Your task to perform on an android device: turn off picture-in-picture Image 0: 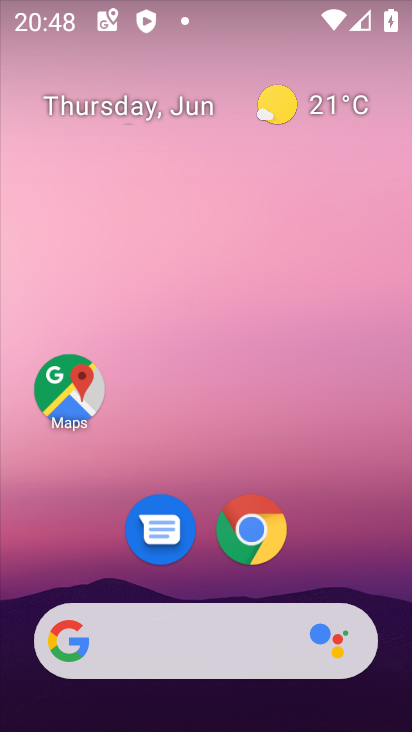
Step 0: drag from (363, 508) to (203, 111)
Your task to perform on an android device: turn off picture-in-picture Image 1: 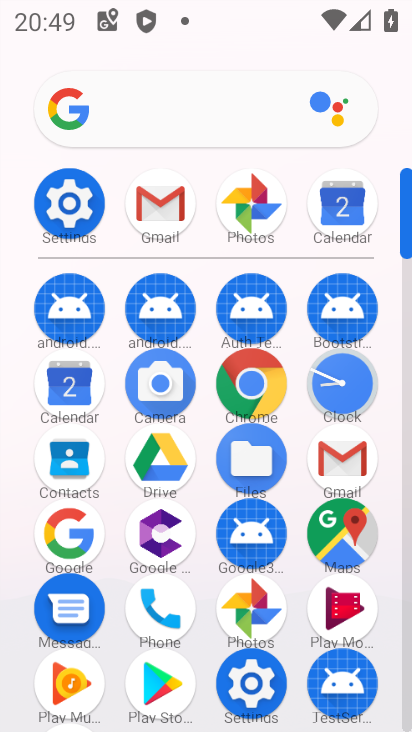
Step 1: click (64, 198)
Your task to perform on an android device: turn off picture-in-picture Image 2: 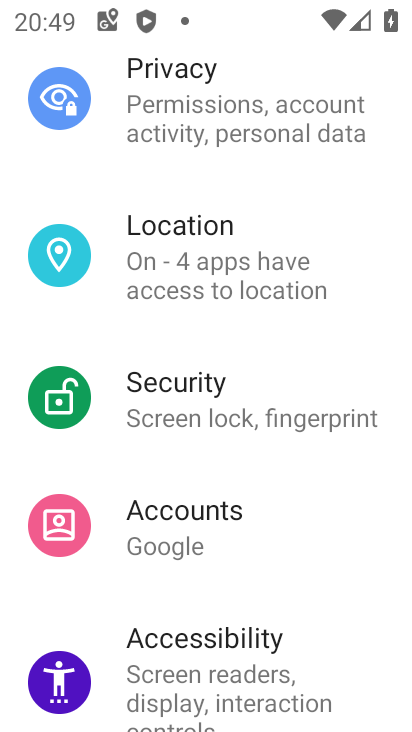
Step 2: drag from (180, 168) to (159, 501)
Your task to perform on an android device: turn off picture-in-picture Image 3: 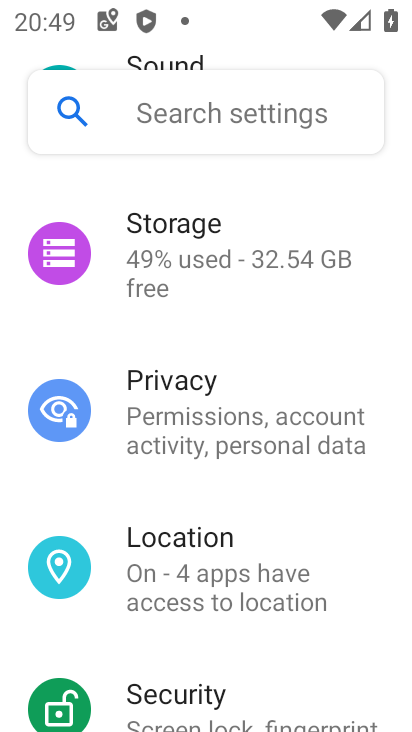
Step 3: drag from (130, 196) to (179, 502)
Your task to perform on an android device: turn off picture-in-picture Image 4: 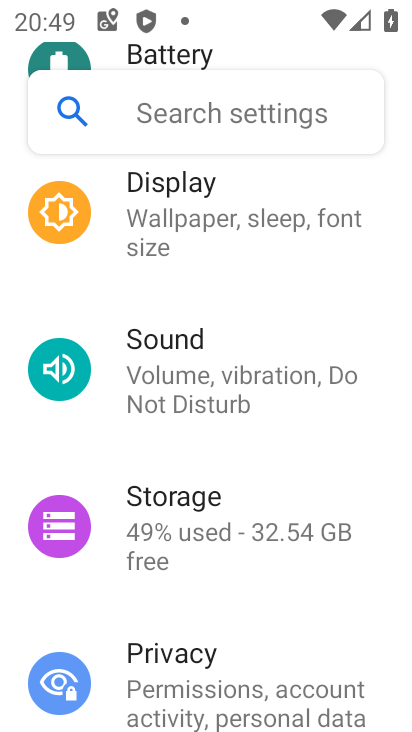
Step 4: drag from (240, 276) to (234, 658)
Your task to perform on an android device: turn off picture-in-picture Image 5: 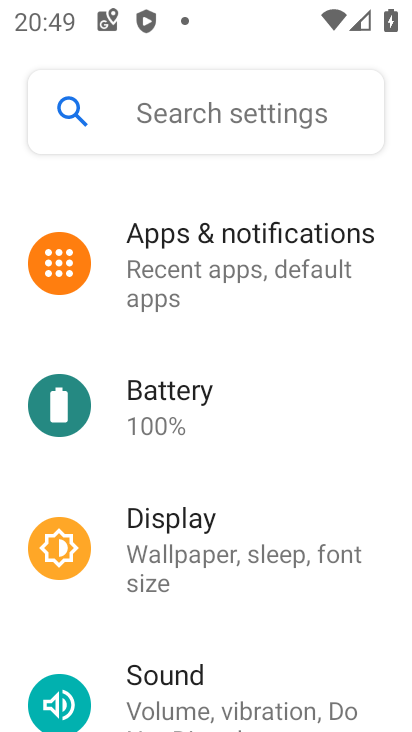
Step 5: click (214, 234)
Your task to perform on an android device: turn off picture-in-picture Image 6: 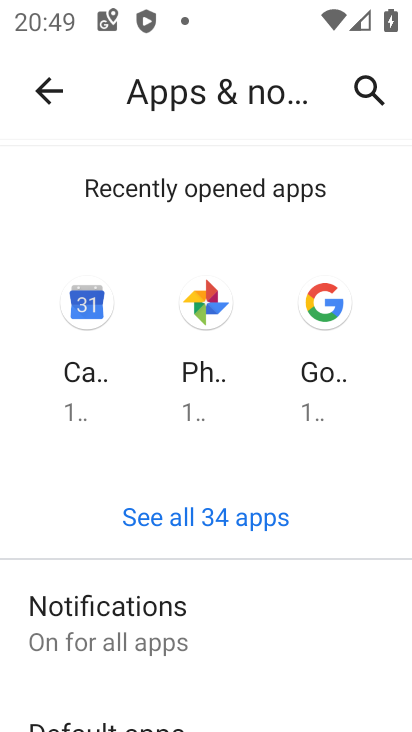
Step 6: drag from (243, 613) to (194, 252)
Your task to perform on an android device: turn off picture-in-picture Image 7: 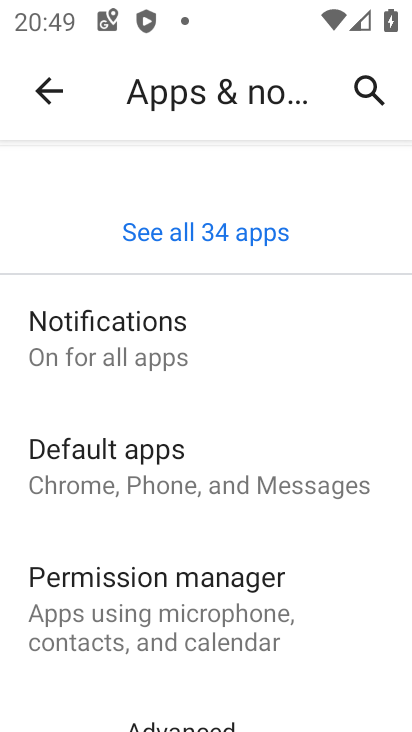
Step 7: drag from (330, 615) to (291, 185)
Your task to perform on an android device: turn off picture-in-picture Image 8: 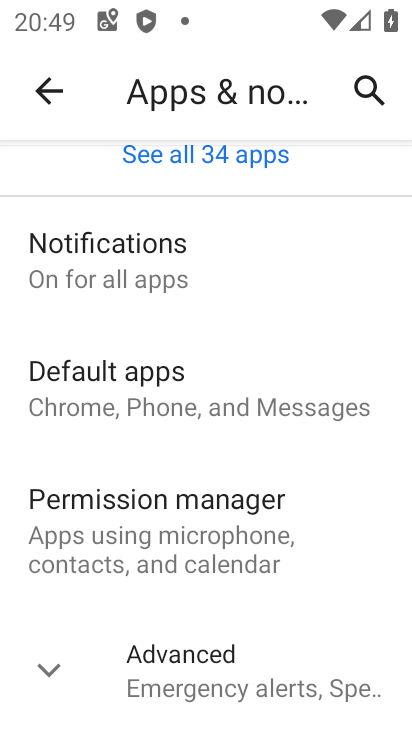
Step 8: click (51, 670)
Your task to perform on an android device: turn off picture-in-picture Image 9: 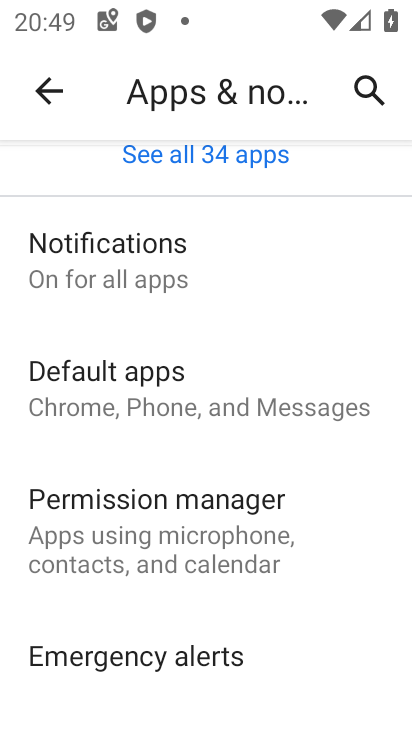
Step 9: drag from (258, 610) to (223, 250)
Your task to perform on an android device: turn off picture-in-picture Image 10: 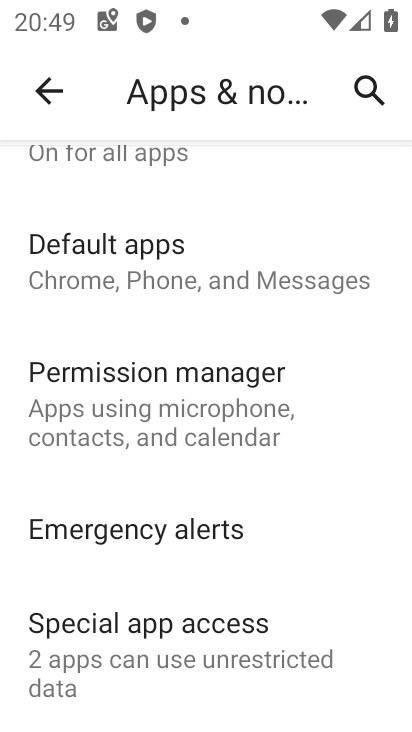
Step 10: click (105, 630)
Your task to perform on an android device: turn off picture-in-picture Image 11: 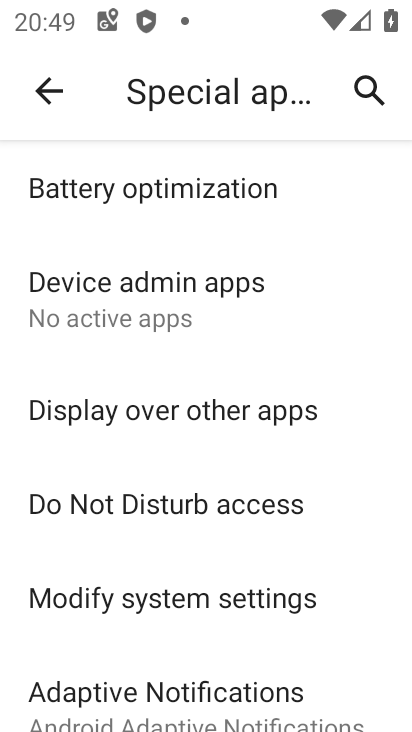
Step 11: drag from (308, 633) to (283, 272)
Your task to perform on an android device: turn off picture-in-picture Image 12: 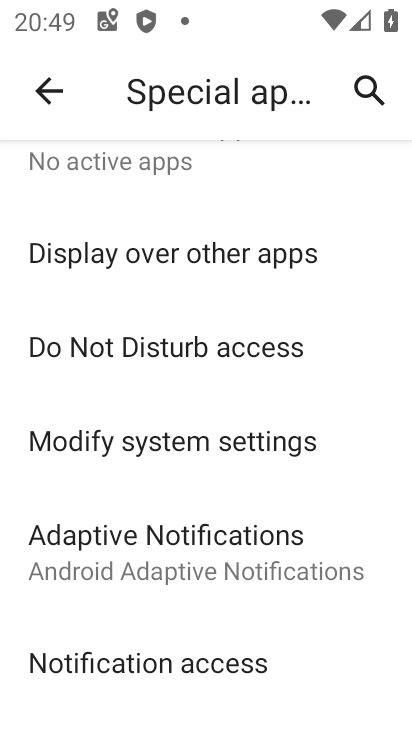
Step 12: drag from (290, 654) to (217, 273)
Your task to perform on an android device: turn off picture-in-picture Image 13: 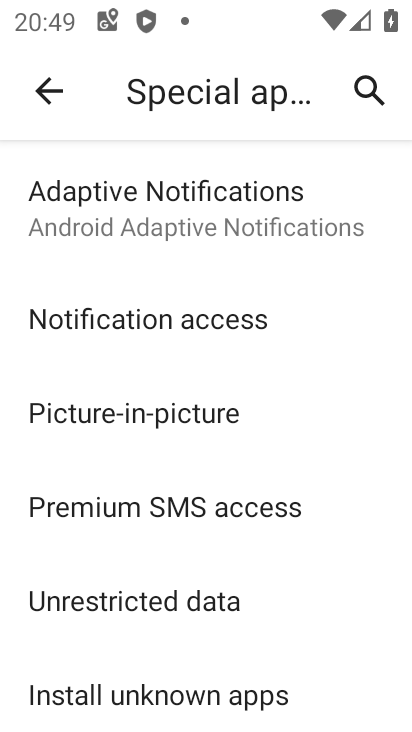
Step 13: click (157, 412)
Your task to perform on an android device: turn off picture-in-picture Image 14: 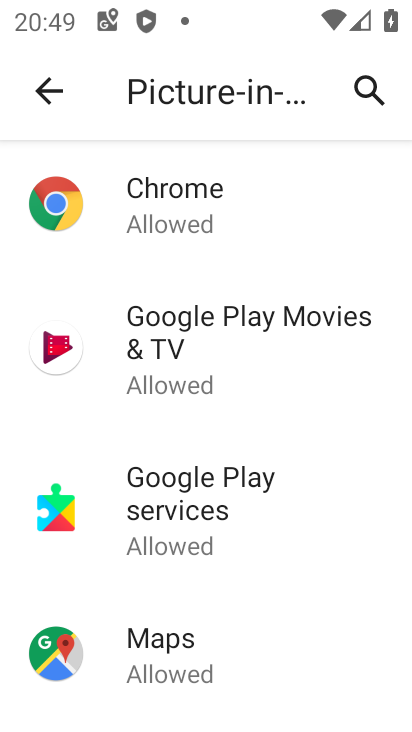
Step 14: click (160, 221)
Your task to perform on an android device: turn off picture-in-picture Image 15: 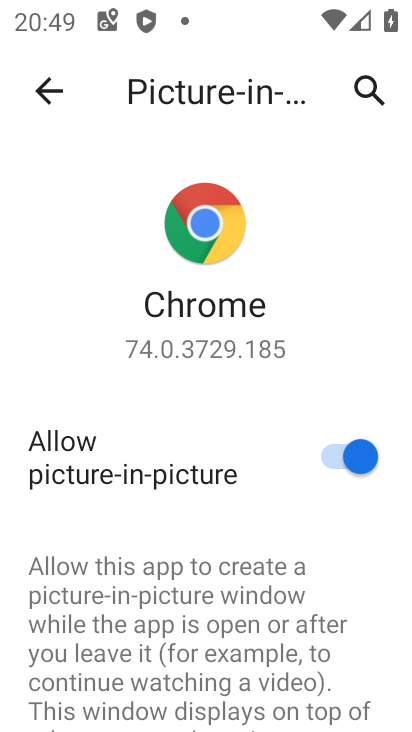
Step 15: click (353, 456)
Your task to perform on an android device: turn off picture-in-picture Image 16: 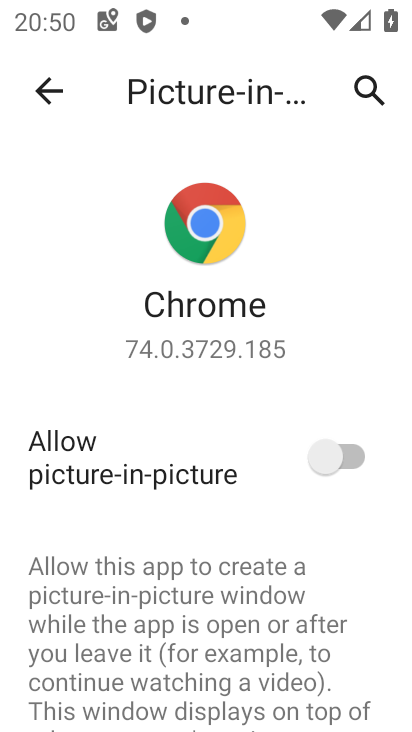
Step 16: click (29, 90)
Your task to perform on an android device: turn off picture-in-picture Image 17: 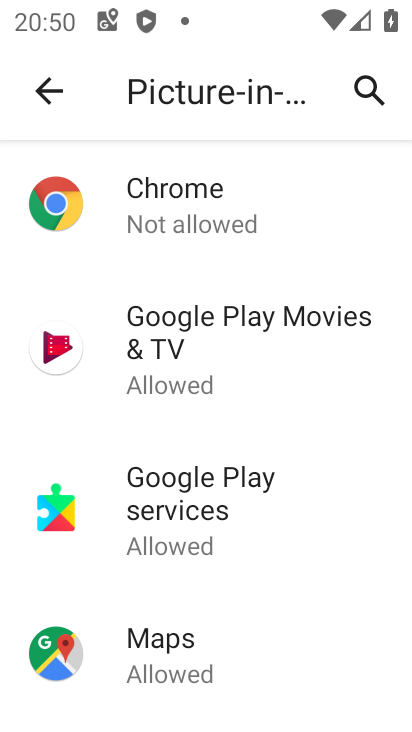
Step 17: click (171, 364)
Your task to perform on an android device: turn off picture-in-picture Image 18: 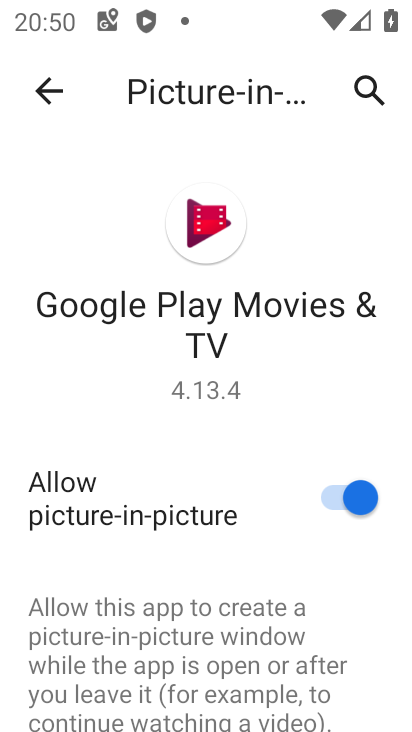
Step 18: click (356, 493)
Your task to perform on an android device: turn off picture-in-picture Image 19: 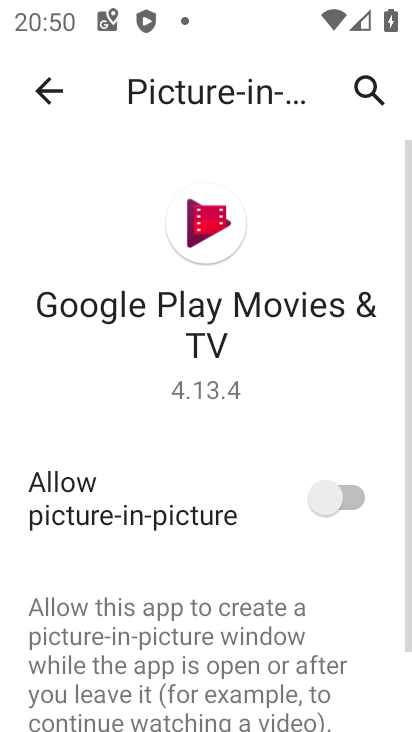
Step 19: click (41, 94)
Your task to perform on an android device: turn off picture-in-picture Image 20: 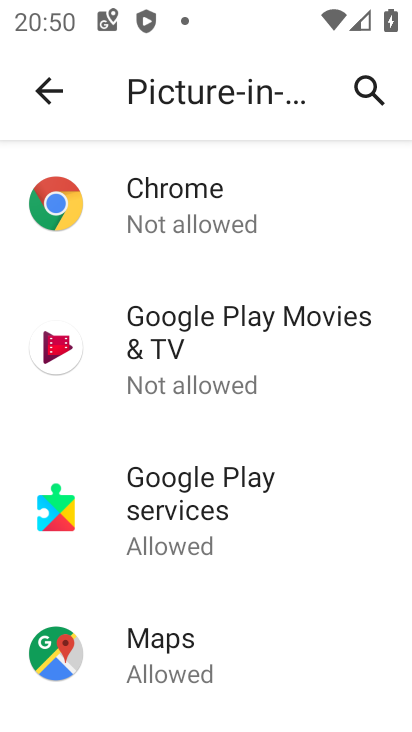
Step 20: click (181, 511)
Your task to perform on an android device: turn off picture-in-picture Image 21: 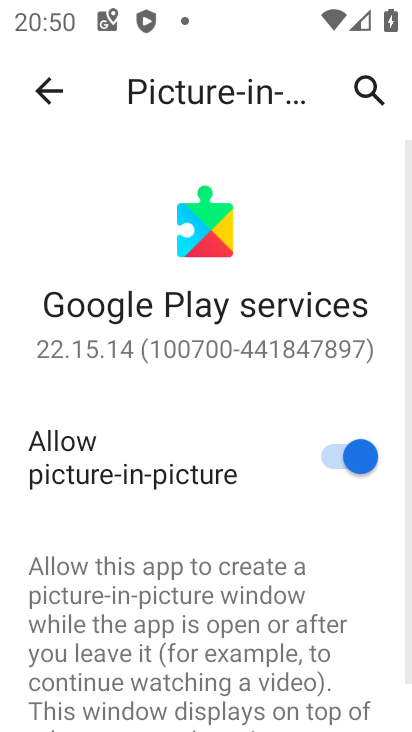
Step 21: click (338, 452)
Your task to perform on an android device: turn off picture-in-picture Image 22: 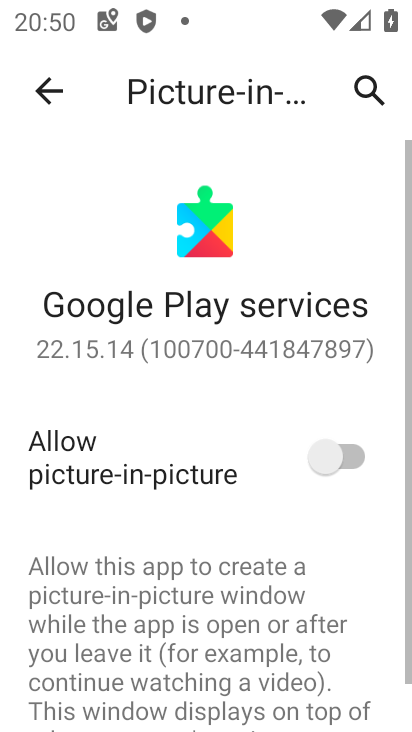
Step 22: click (43, 87)
Your task to perform on an android device: turn off picture-in-picture Image 23: 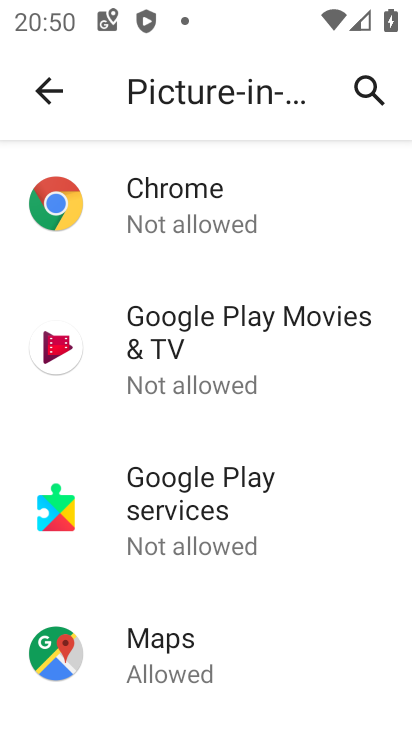
Step 23: click (170, 657)
Your task to perform on an android device: turn off picture-in-picture Image 24: 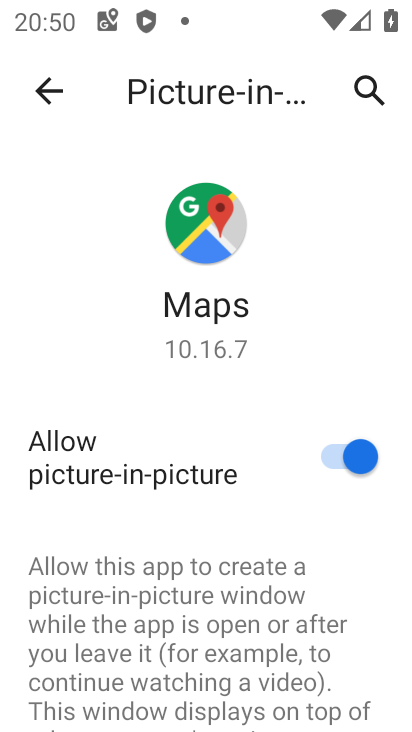
Step 24: click (348, 459)
Your task to perform on an android device: turn off picture-in-picture Image 25: 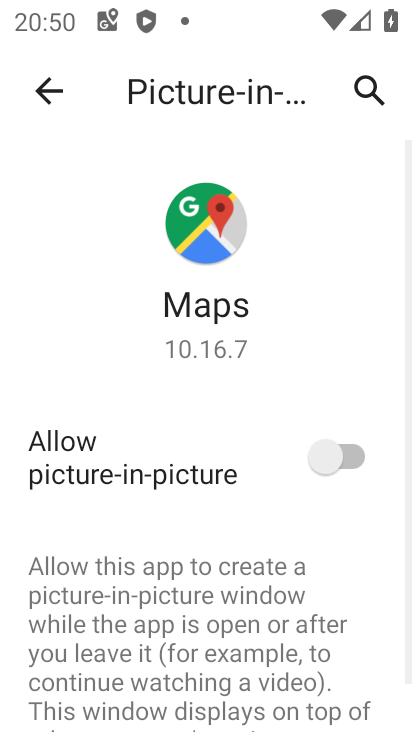
Step 25: click (42, 88)
Your task to perform on an android device: turn off picture-in-picture Image 26: 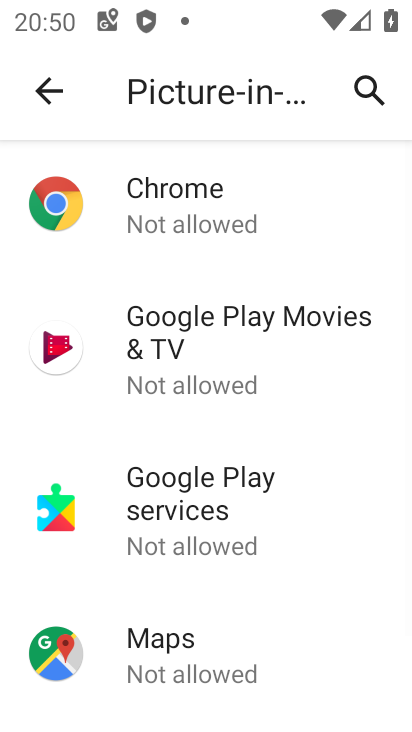
Step 26: drag from (335, 580) to (274, 255)
Your task to perform on an android device: turn off picture-in-picture Image 27: 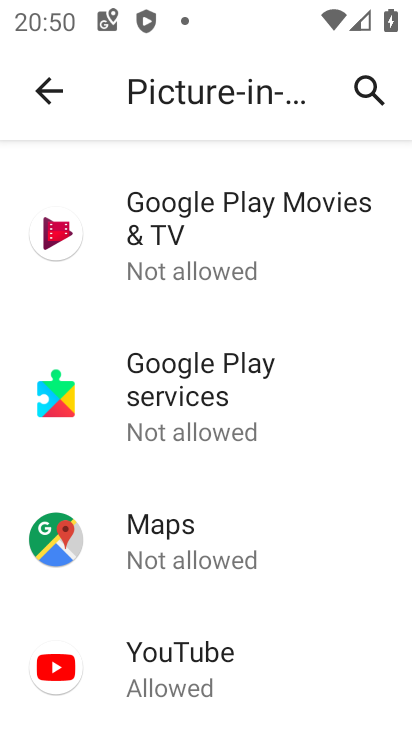
Step 27: click (179, 672)
Your task to perform on an android device: turn off picture-in-picture Image 28: 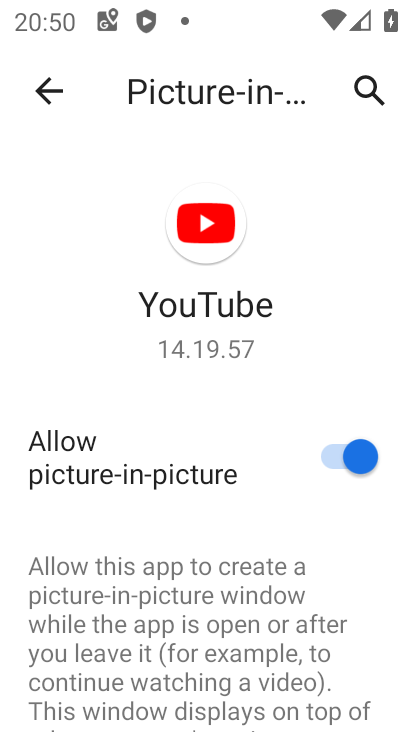
Step 28: click (346, 463)
Your task to perform on an android device: turn off picture-in-picture Image 29: 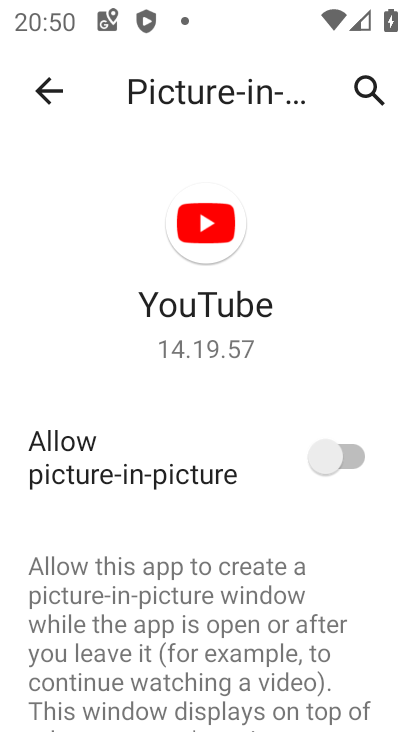
Step 29: click (53, 87)
Your task to perform on an android device: turn off picture-in-picture Image 30: 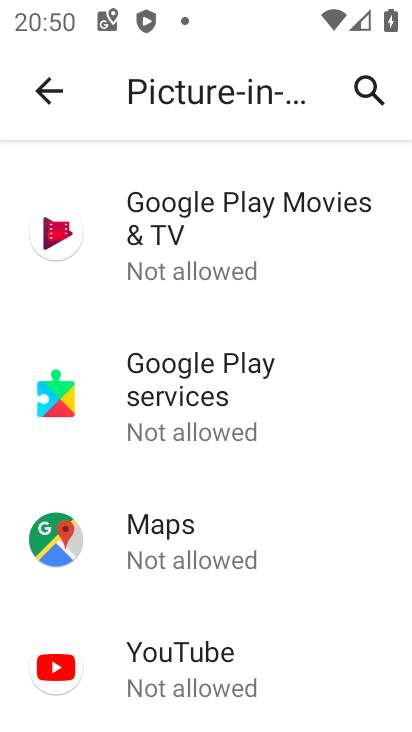
Step 30: task complete